Your task to perform on an android device: Open internet settings Image 0: 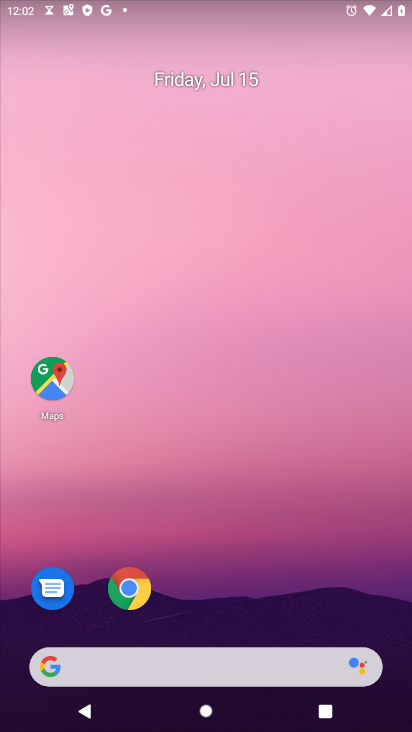
Step 0: drag from (207, 668) to (318, 111)
Your task to perform on an android device: Open internet settings Image 1: 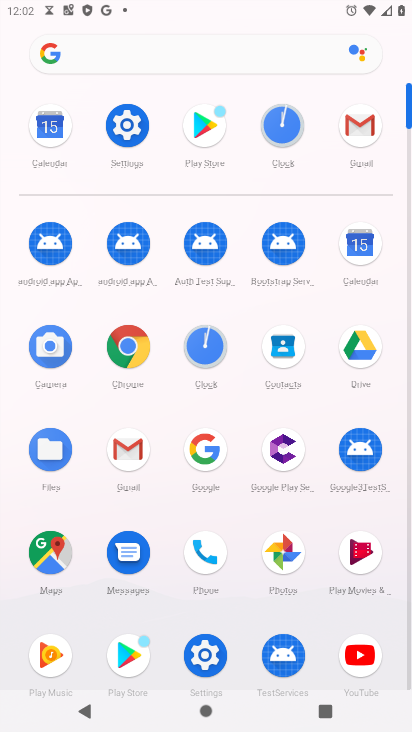
Step 1: click (125, 131)
Your task to perform on an android device: Open internet settings Image 2: 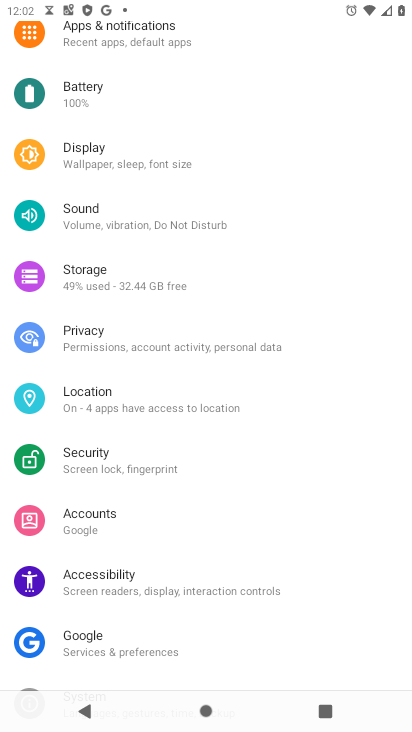
Step 2: drag from (298, 141) to (282, 566)
Your task to perform on an android device: Open internet settings Image 3: 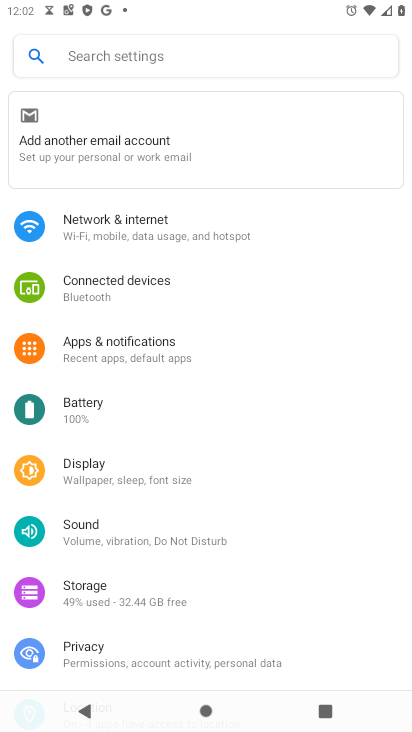
Step 3: click (141, 223)
Your task to perform on an android device: Open internet settings Image 4: 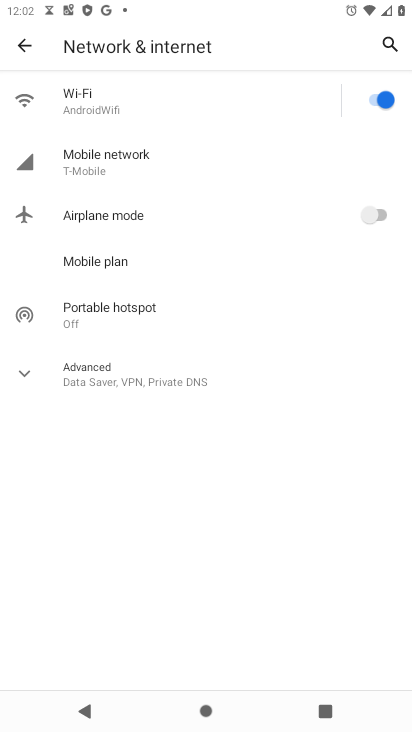
Step 4: task complete